Your task to perform on an android device: show emergency info Image 0: 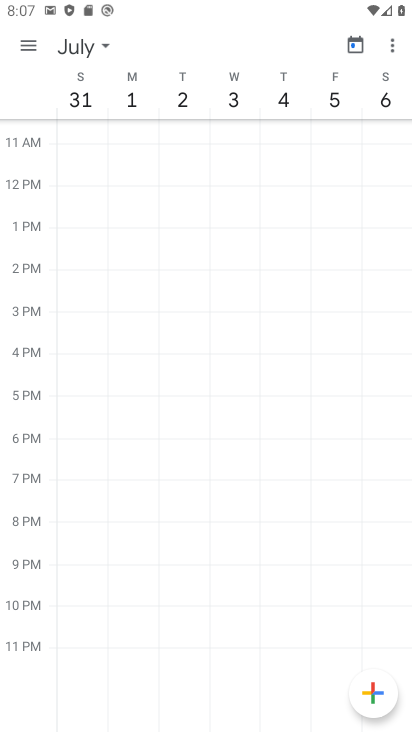
Step 0: press home button
Your task to perform on an android device: show emergency info Image 1: 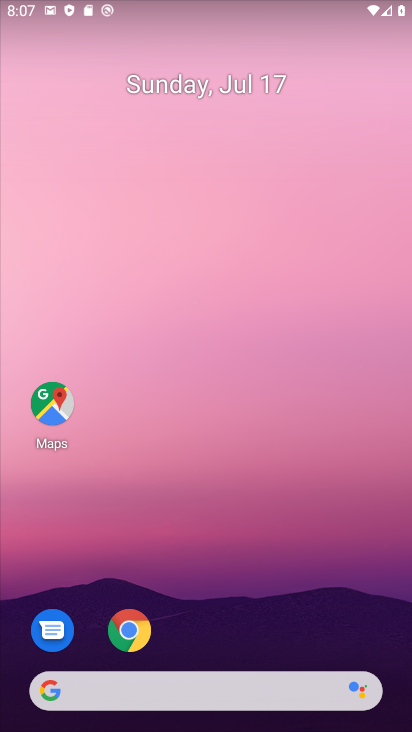
Step 1: drag from (224, 609) to (117, 8)
Your task to perform on an android device: show emergency info Image 2: 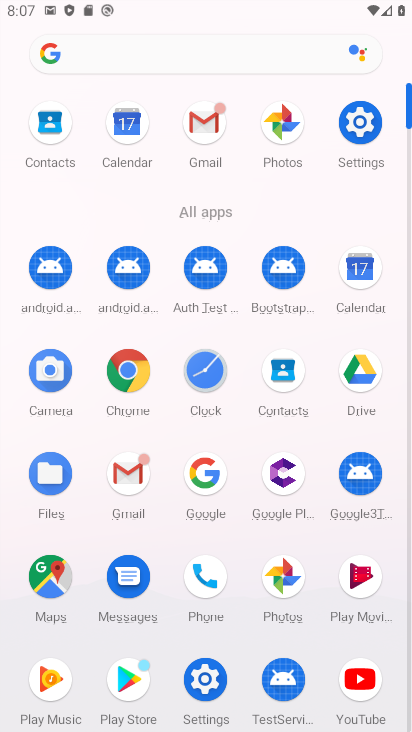
Step 2: click (198, 692)
Your task to perform on an android device: show emergency info Image 3: 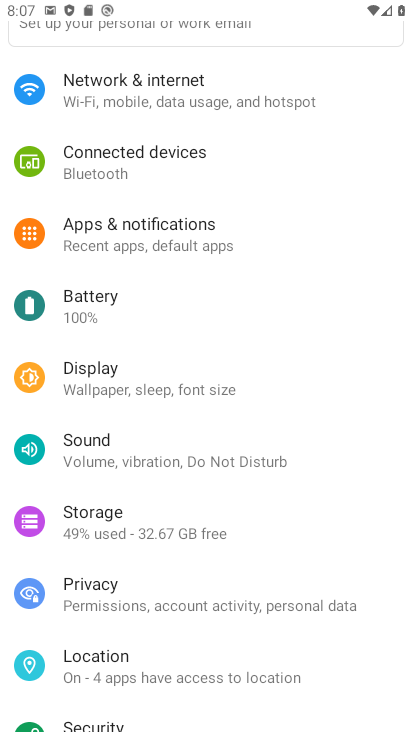
Step 3: drag from (167, 655) to (194, 46)
Your task to perform on an android device: show emergency info Image 4: 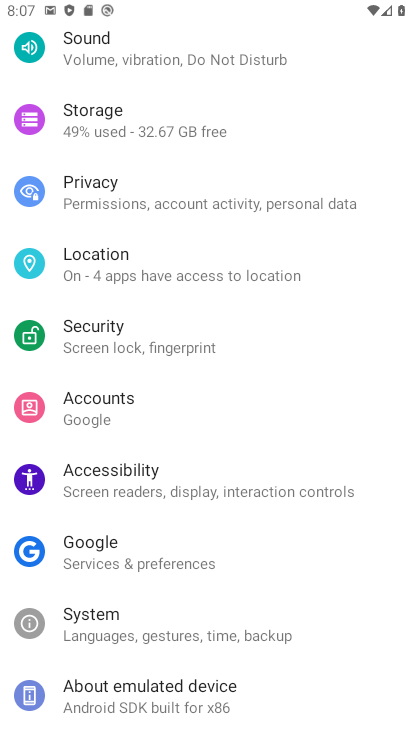
Step 4: drag from (155, 650) to (146, 259)
Your task to perform on an android device: show emergency info Image 5: 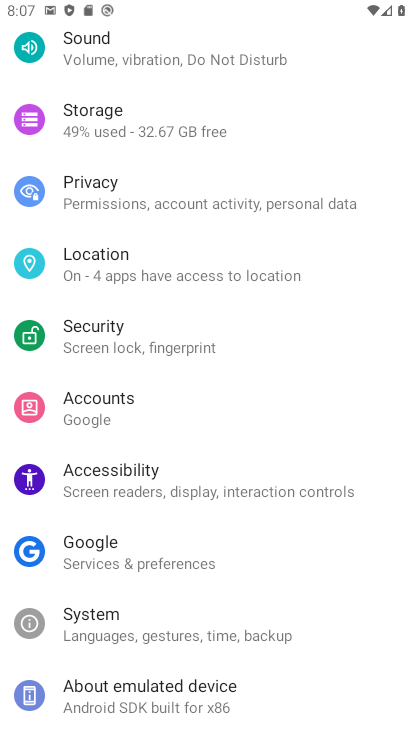
Step 5: click (115, 694)
Your task to perform on an android device: show emergency info Image 6: 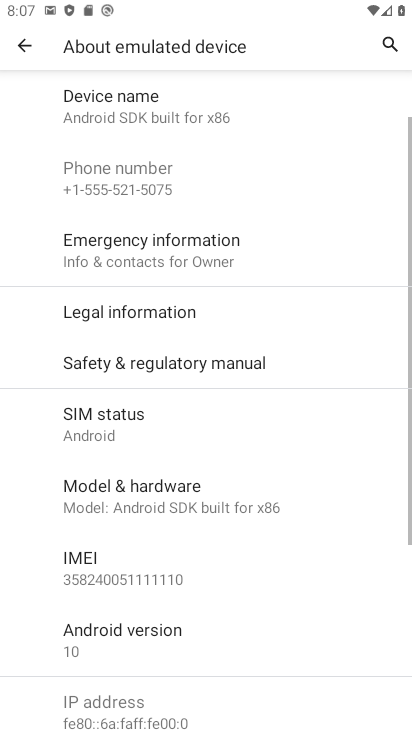
Step 6: click (151, 268)
Your task to perform on an android device: show emergency info Image 7: 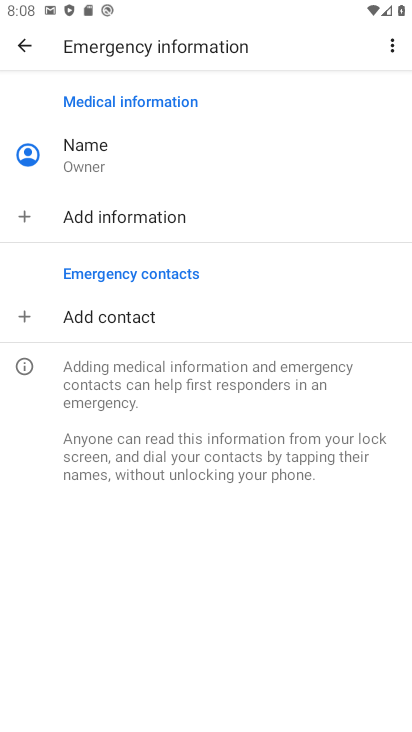
Step 7: task complete